Your task to perform on an android device: Open maps Image 0: 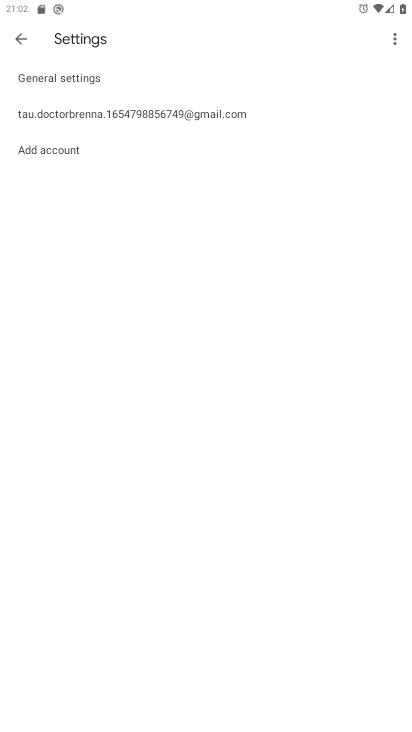
Step 0: press home button
Your task to perform on an android device: Open maps Image 1: 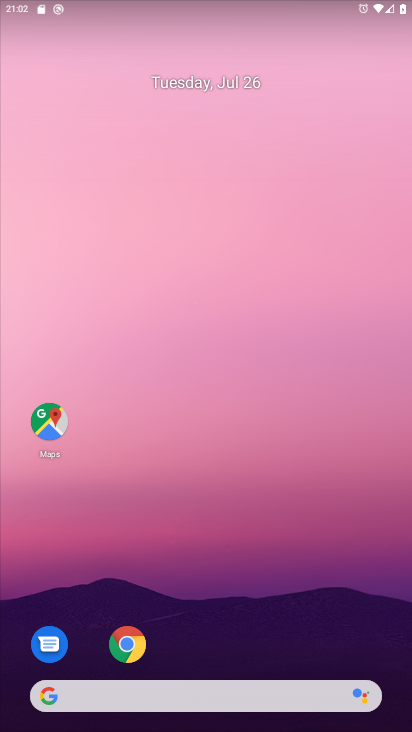
Step 1: click (53, 432)
Your task to perform on an android device: Open maps Image 2: 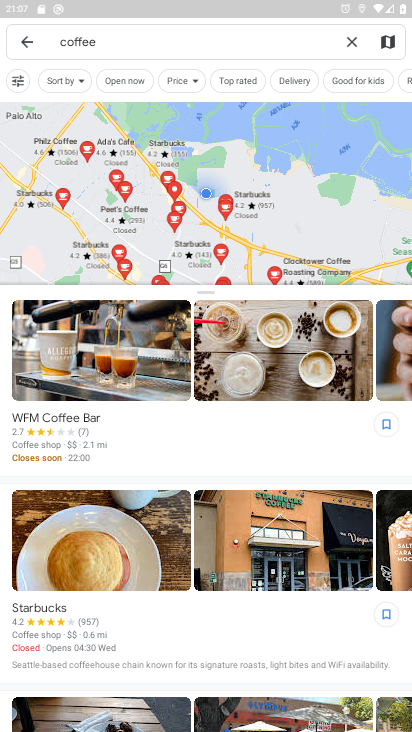
Step 2: task complete